Your task to perform on an android device: Search for sushi restaurants on Maps Image 0: 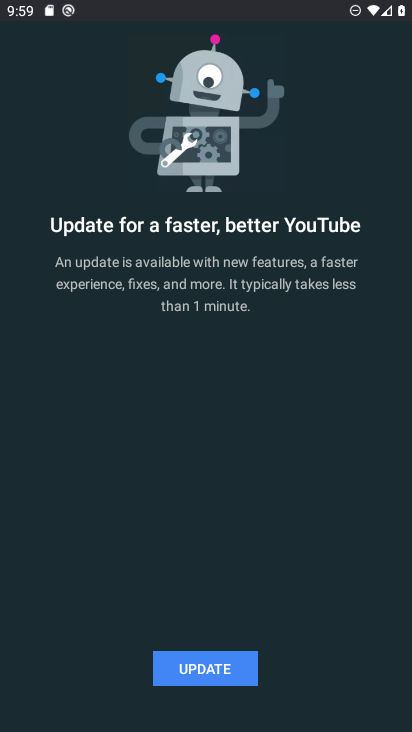
Step 0: press home button
Your task to perform on an android device: Search for sushi restaurants on Maps Image 1: 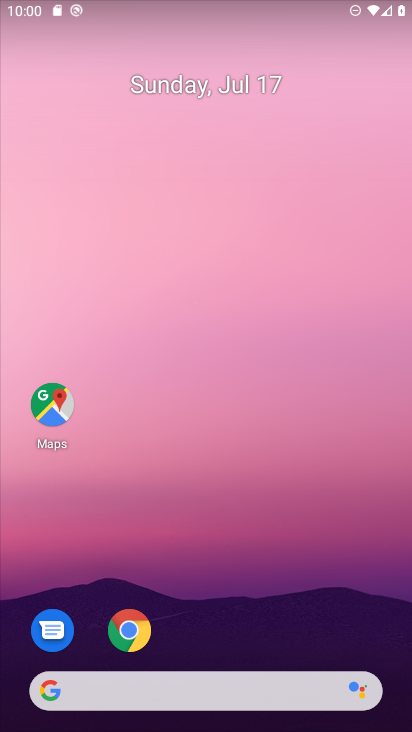
Step 1: click (47, 404)
Your task to perform on an android device: Search for sushi restaurants on Maps Image 2: 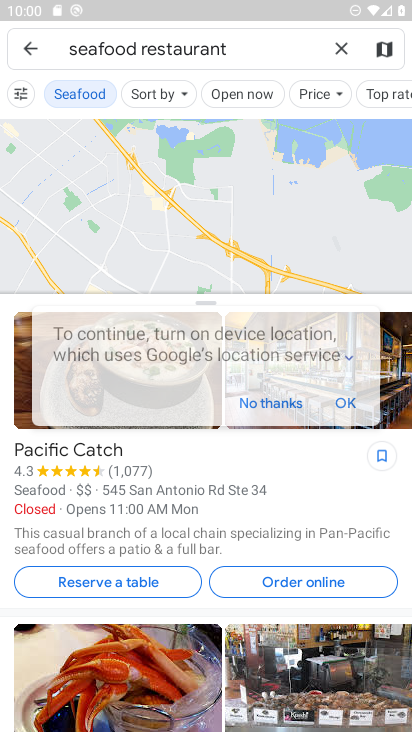
Step 2: click (340, 48)
Your task to perform on an android device: Search for sushi restaurants on Maps Image 3: 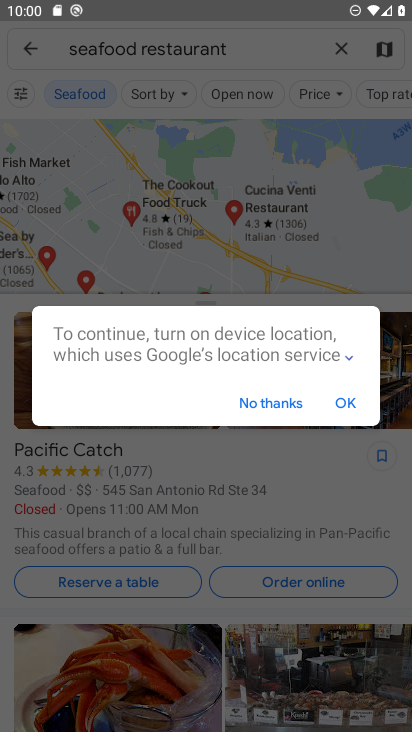
Step 3: click (263, 408)
Your task to perform on an android device: Search for sushi restaurants on Maps Image 4: 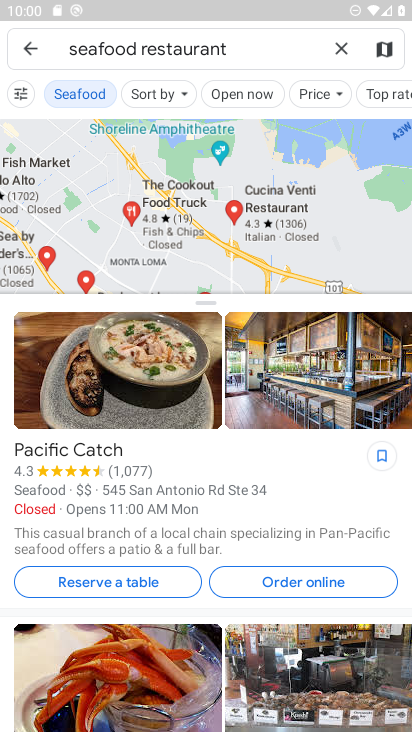
Step 4: click (338, 41)
Your task to perform on an android device: Search for sushi restaurants on Maps Image 5: 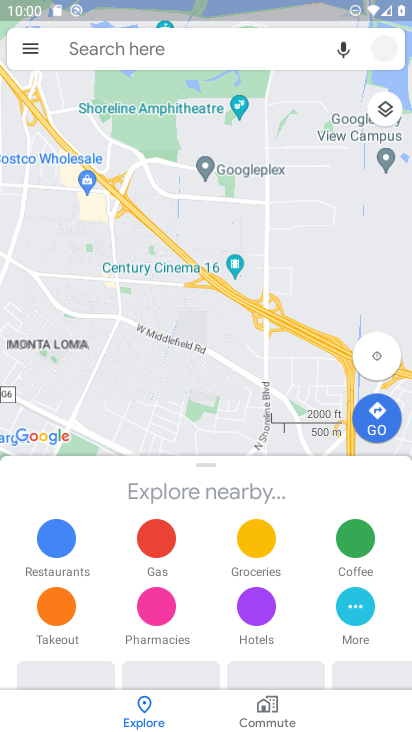
Step 5: click (275, 45)
Your task to perform on an android device: Search for sushi restaurants on Maps Image 6: 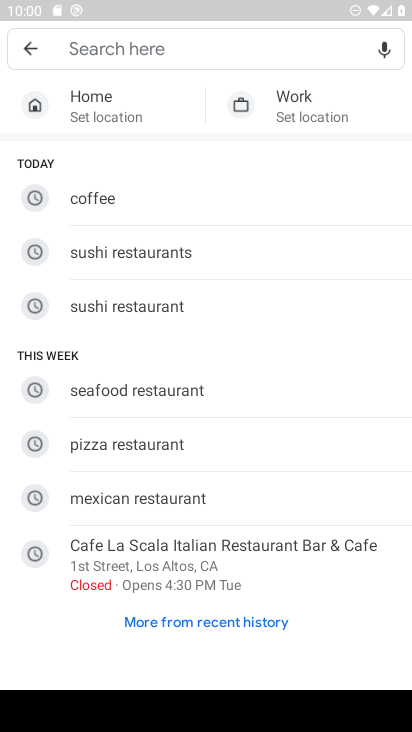
Step 6: click (145, 253)
Your task to perform on an android device: Search for sushi restaurants on Maps Image 7: 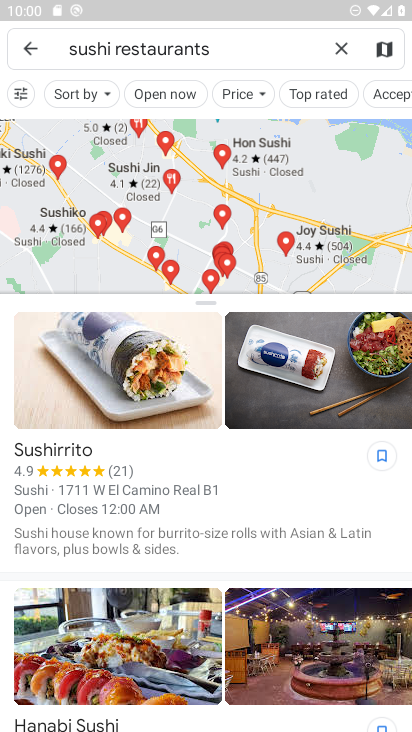
Step 7: task complete